Your task to perform on an android device: turn on airplane mode Image 0: 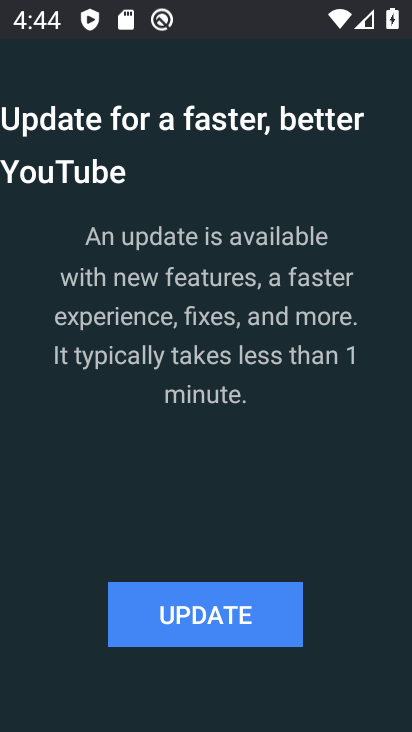
Step 0: press home button
Your task to perform on an android device: turn on airplane mode Image 1: 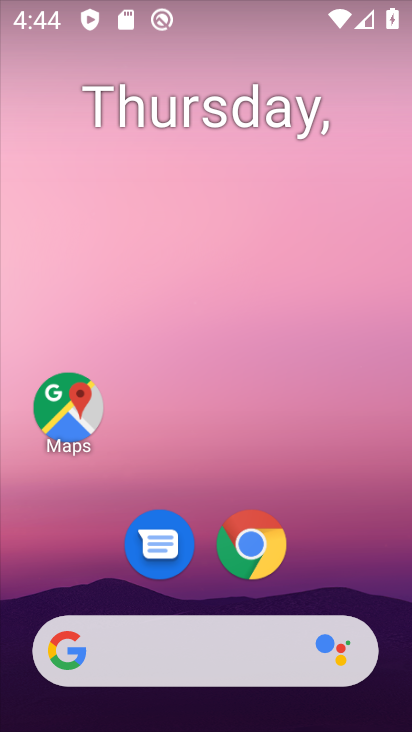
Step 1: drag from (353, 554) to (372, 144)
Your task to perform on an android device: turn on airplane mode Image 2: 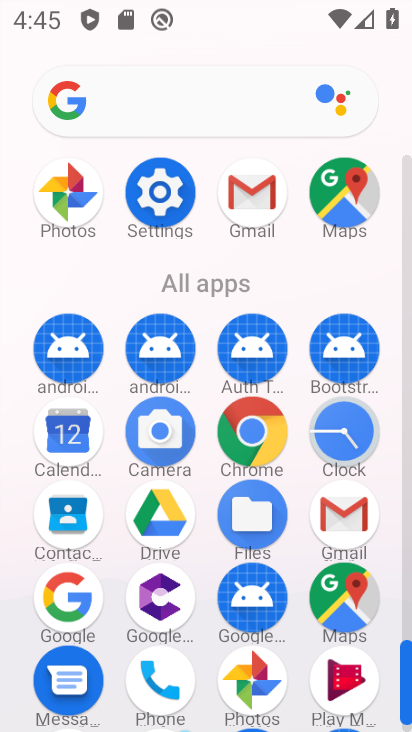
Step 2: click (169, 200)
Your task to perform on an android device: turn on airplane mode Image 3: 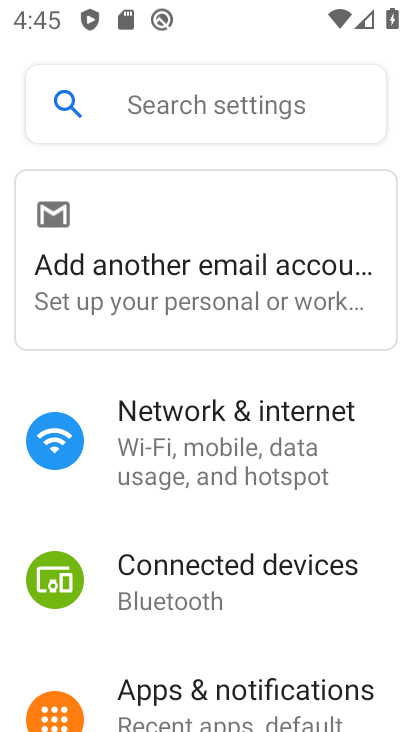
Step 3: click (189, 435)
Your task to perform on an android device: turn on airplane mode Image 4: 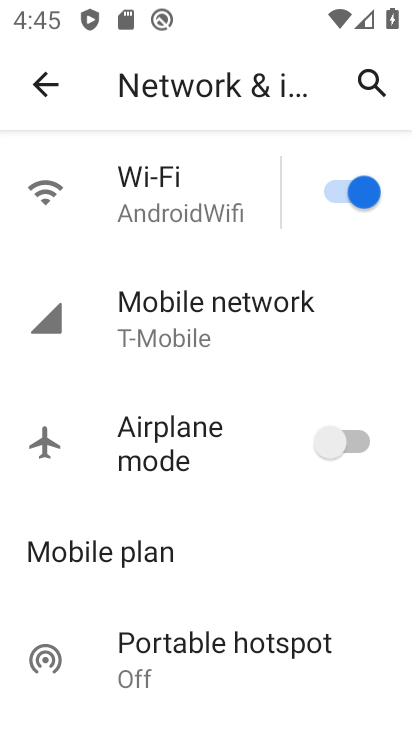
Step 4: click (357, 433)
Your task to perform on an android device: turn on airplane mode Image 5: 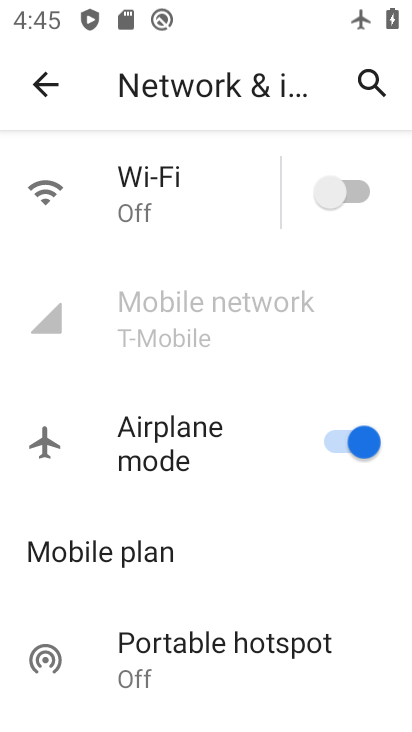
Step 5: task complete